Your task to perform on an android device: Open settings Image 0: 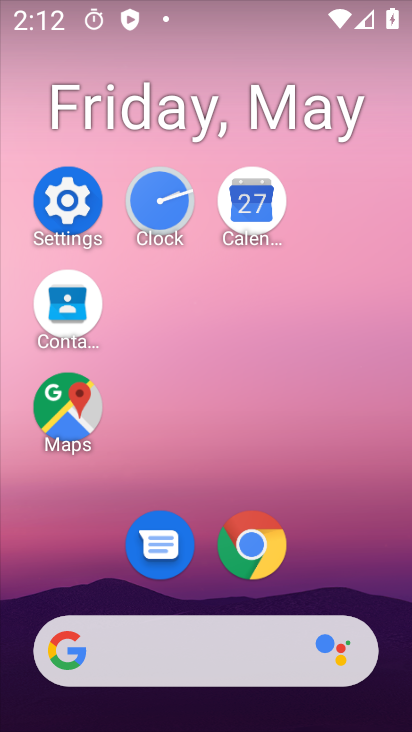
Step 0: click (75, 225)
Your task to perform on an android device: Open settings Image 1: 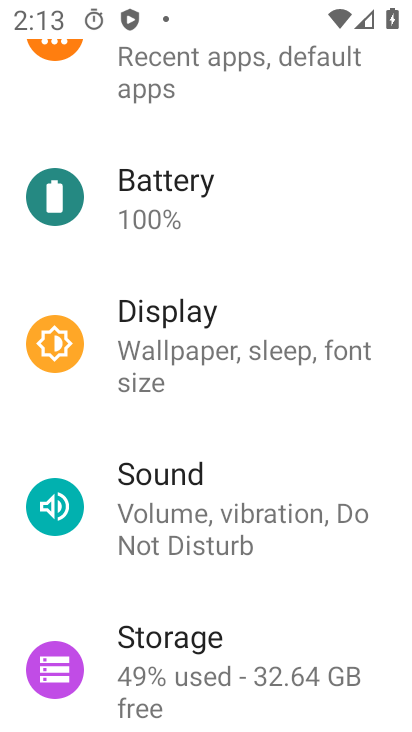
Step 1: task complete